Your task to perform on an android device: add a contact in the contacts app Image 0: 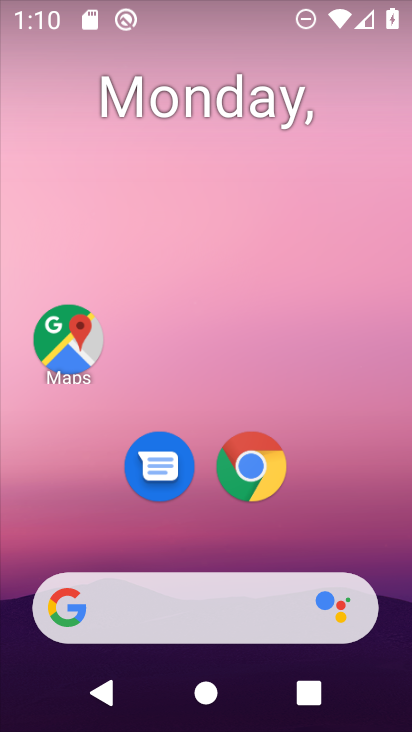
Step 0: drag from (217, 529) to (312, 16)
Your task to perform on an android device: add a contact in the contacts app Image 1: 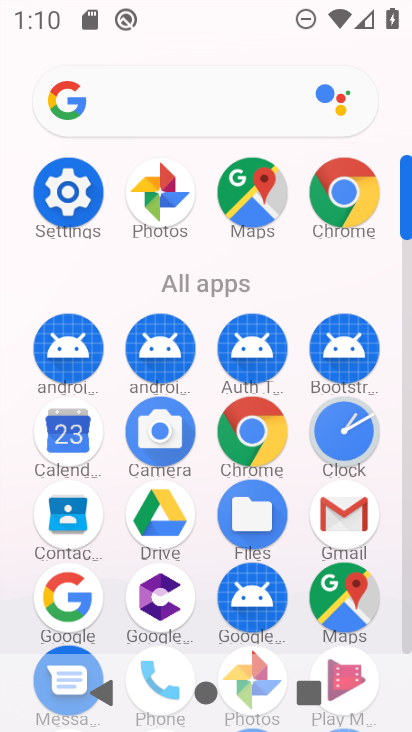
Step 1: click (72, 528)
Your task to perform on an android device: add a contact in the contacts app Image 2: 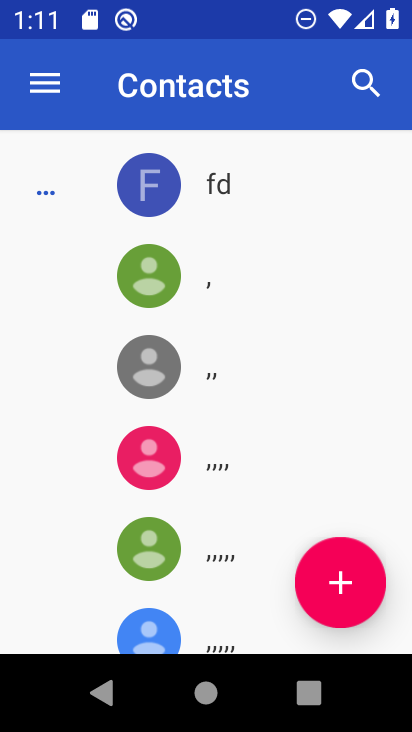
Step 2: click (337, 583)
Your task to perform on an android device: add a contact in the contacts app Image 3: 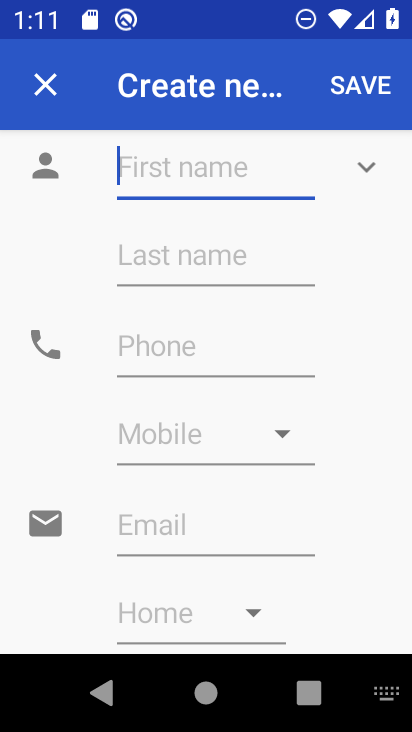
Step 3: type "froun"
Your task to perform on an android device: add a contact in the contacts app Image 4: 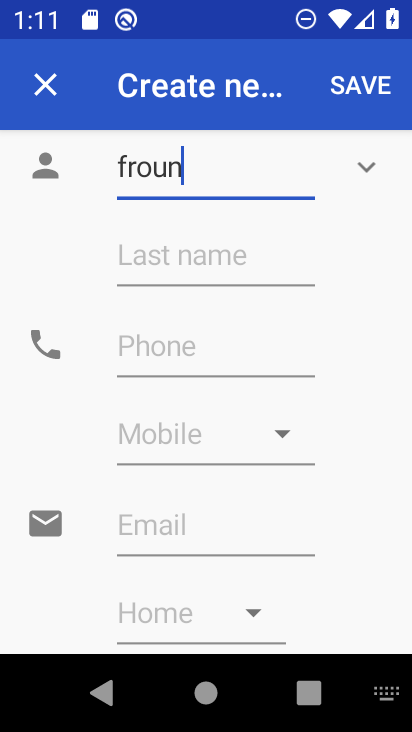
Step 4: click (341, 78)
Your task to perform on an android device: add a contact in the contacts app Image 5: 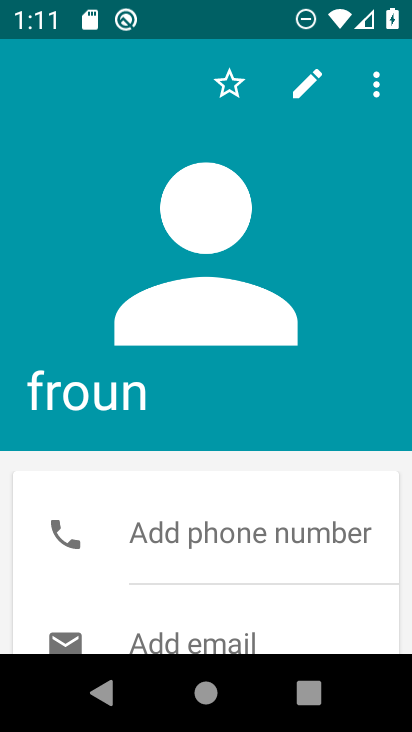
Step 5: task complete